Your task to perform on an android device: Open wifi settings Image 0: 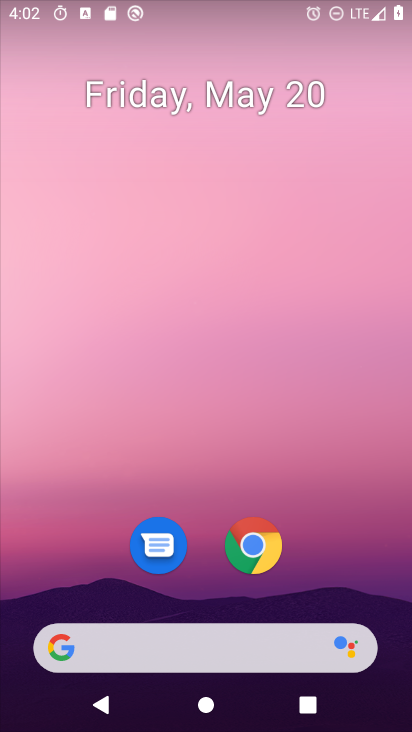
Step 0: drag from (234, 582) to (240, 111)
Your task to perform on an android device: Open wifi settings Image 1: 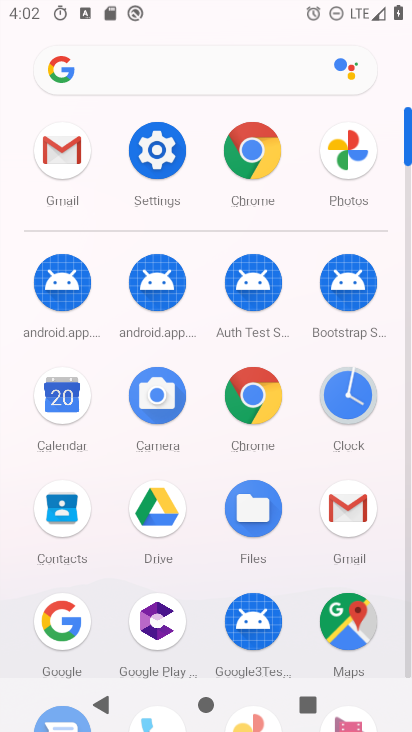
Step 1: click (158, 151)
Your task to perform on an android device: Open wifi settings Image 2: 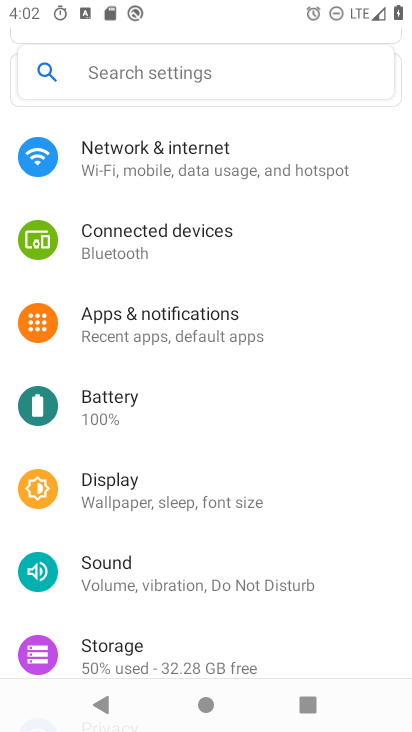
Step 2: click (163, 148)
Your task to perform on an android device: Open wifi settings Image 3: 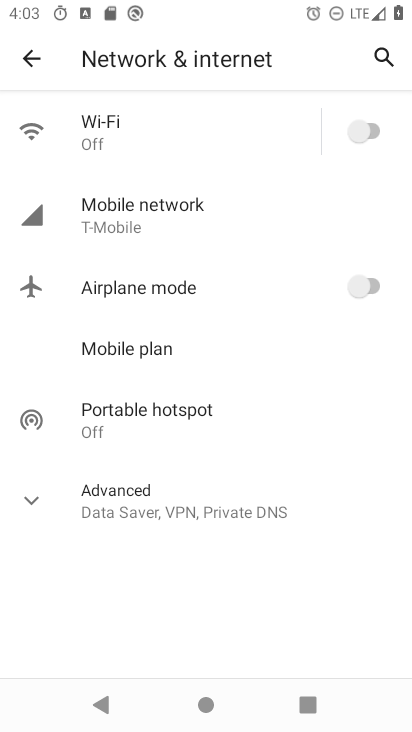
Step 3: click (151, 136)
Your task to perform on an android device: Open wifi settings Image 4: 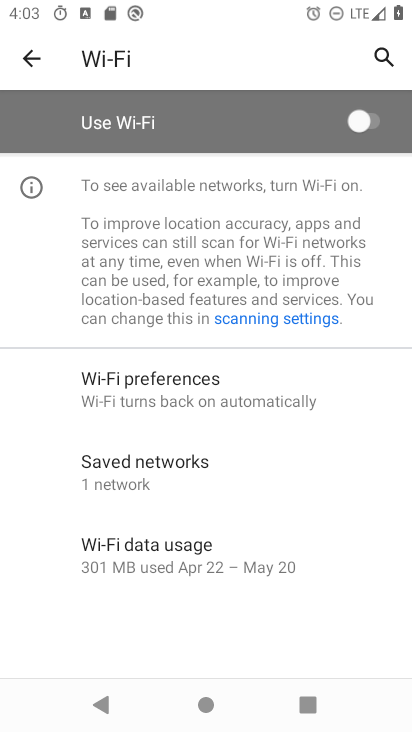
Step 4: task complete